Your task to perform on an android device: Open CNN.com Image 0: 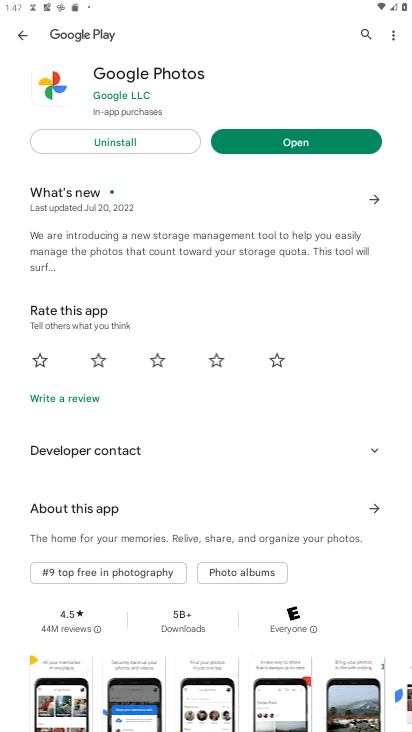
Step 0: press home button
Your task to perform on an android device: Open CNN.com Image 1: 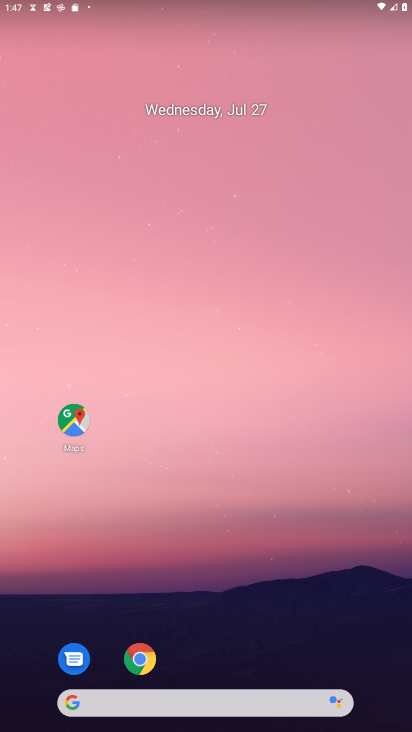
Step 1: click (146, 660)
Your task to perform on an android device: Open CNN.com Image 2: 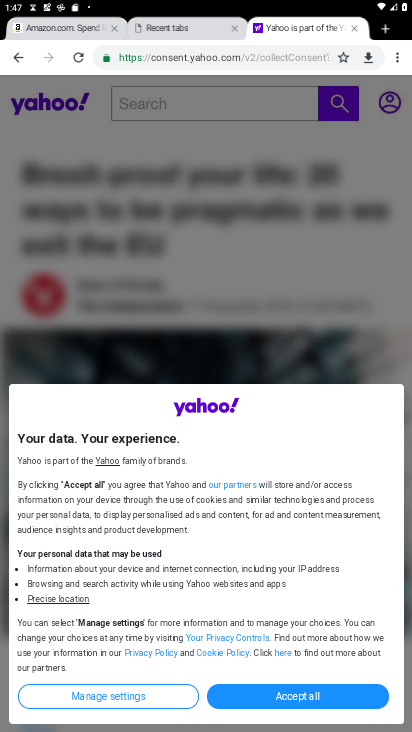
Step 2: click (170, 56)
Your task to perform on an android device: Open CNN.com Image 3: 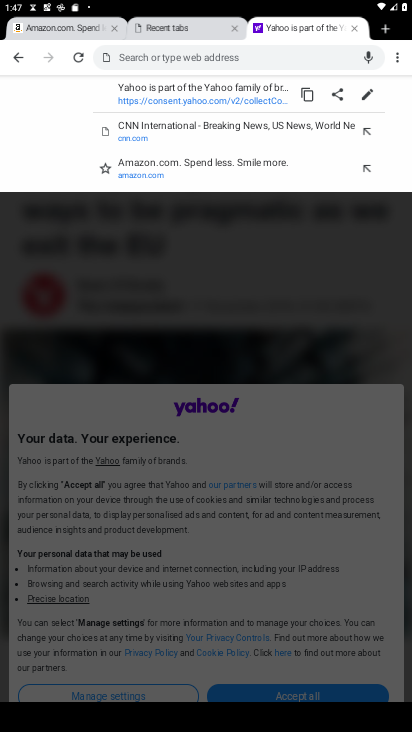
Step 3: type "CNN.com"
Your task to perform on an android device: Open CNN.com Image 4: 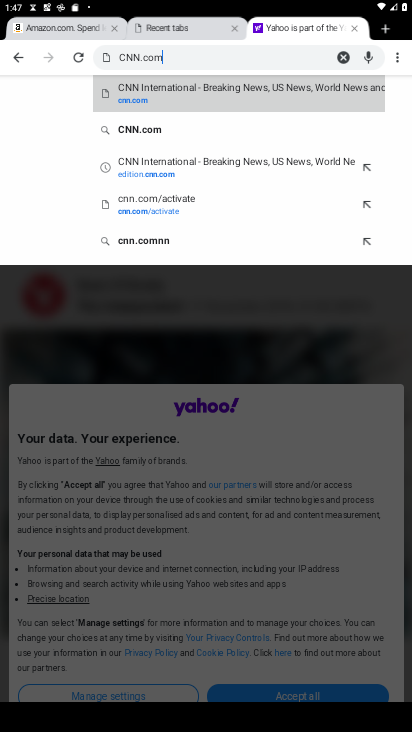
Step 4: type ""
Your task to perform on an android device: Open CNN.com Image 5: 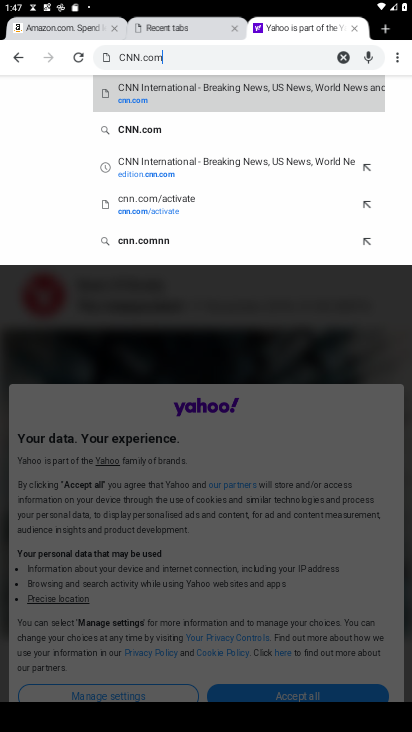
Step 5: click (205, 100)
Your task to perform on an android device: Open CNN.com Image 6: 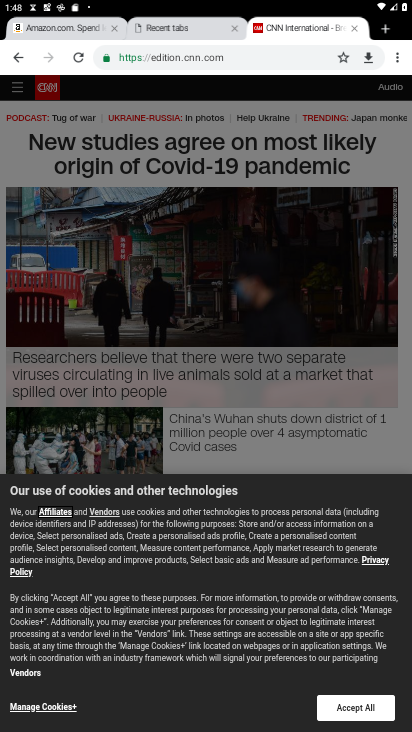
Step 6: task complete